Your task to perform on an android device: show emergency info Image 0: 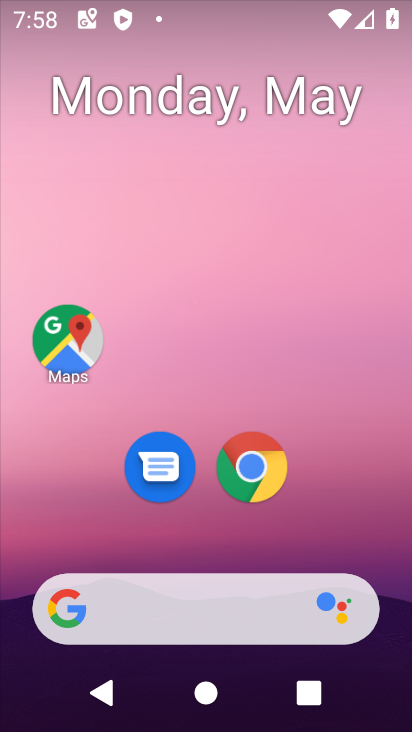
Step 0: drag from (319, 450) to (258, 57)
Your task to perform on an android device: show emergency info Image 1: 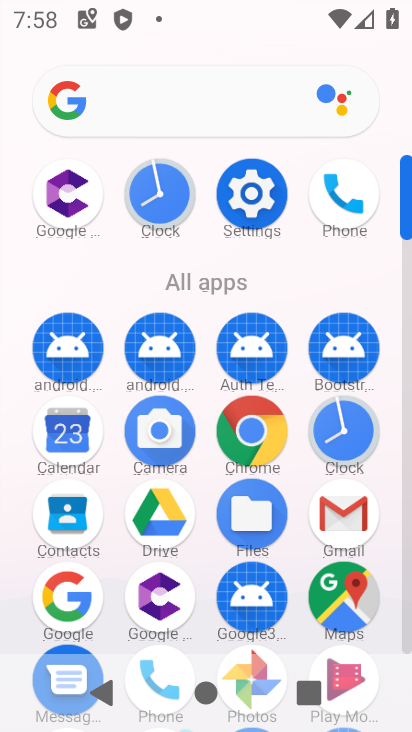
Step 1: click (258, 213)
Your task to perform on an android device: show emergency info Image 2: 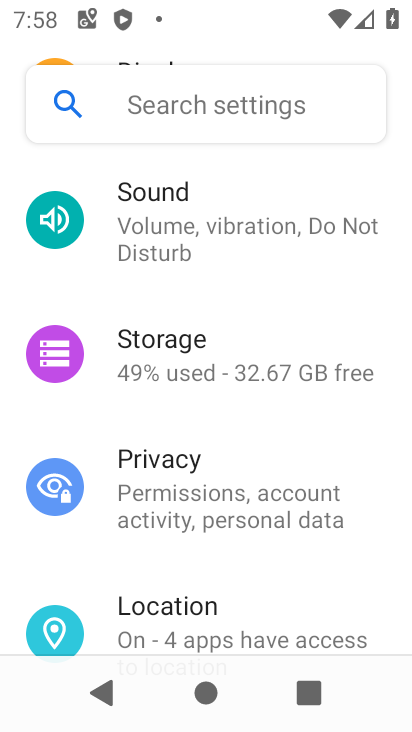
Step 2: drag from (298, 604) to (260, 96)
Your task to perform on an android device: show emergency info Image 3: 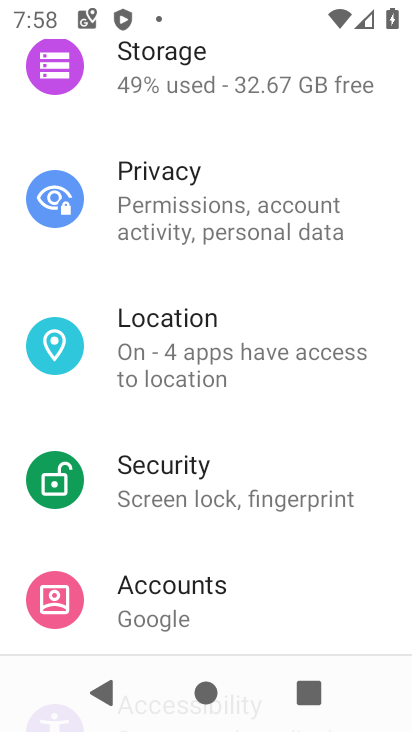
Step 3: drag from (255, 613) to (235, 55)
Your task to perform on an android device: show emergency info Image 4: 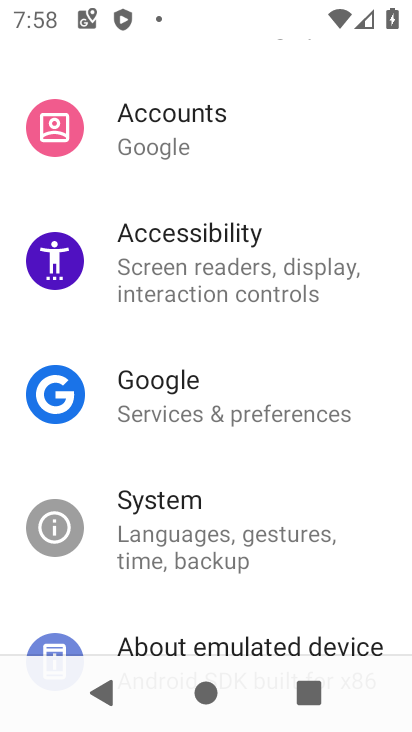
Step 4: drag from (234, 567) to (243, 96)
Your task to perform on an android device: show emergency info Image 5: 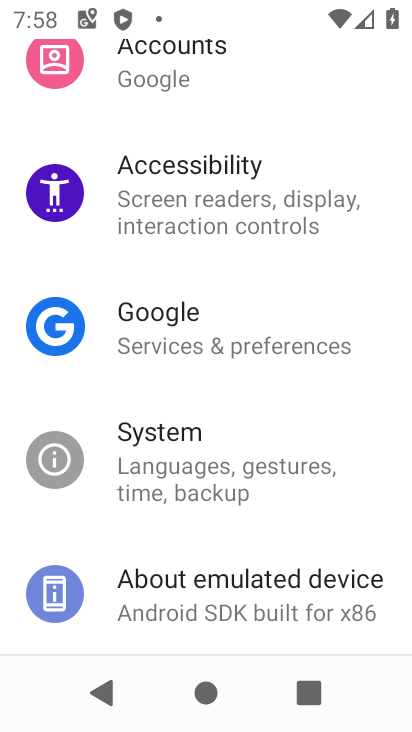
Step 5: click (252, 561)
Your task to perform on an android device: show emergency info Image 6: 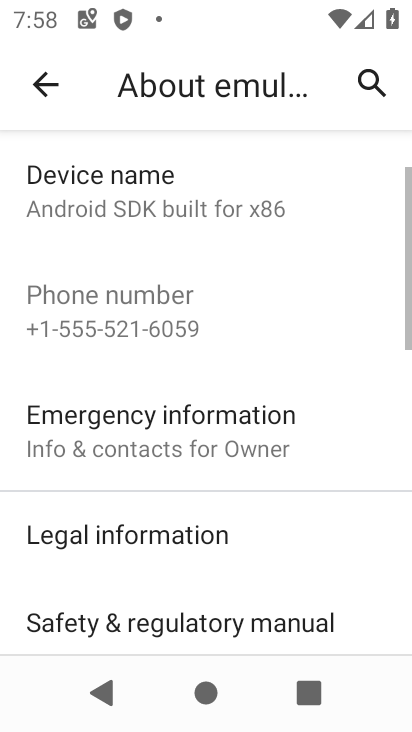
Step 6: click (201, 447)
Your task to perform on an android device: show emergency info Image 7: 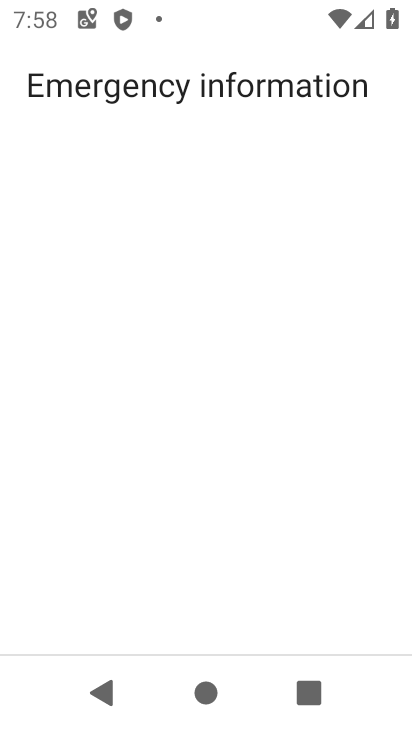
Step 7: task complete